Your task to perform on an android device: Open calendar and show me the second week of next month Image 0: 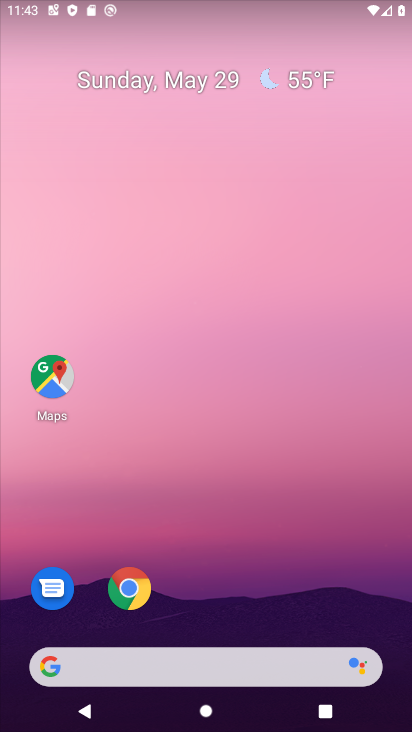
Step 0: drag from (256, 543) to (331, 31)
Your task to perform on an android device: Open calendar and show me the second week of next month Image 1: 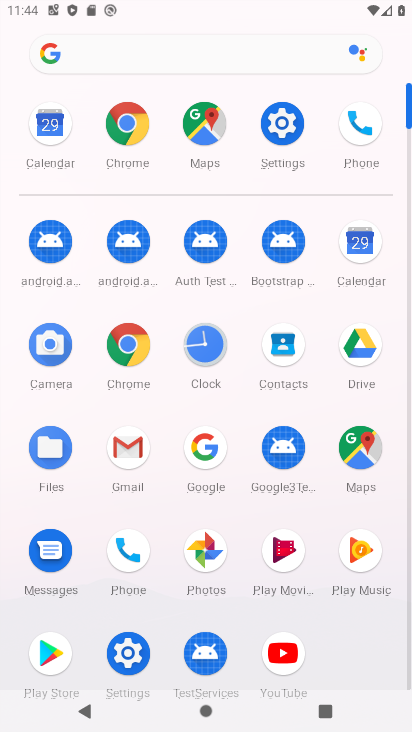
Step 1: click (40, 115)
Your task to perform on an android device: Open calendar and show me the second week of next month Image 2: 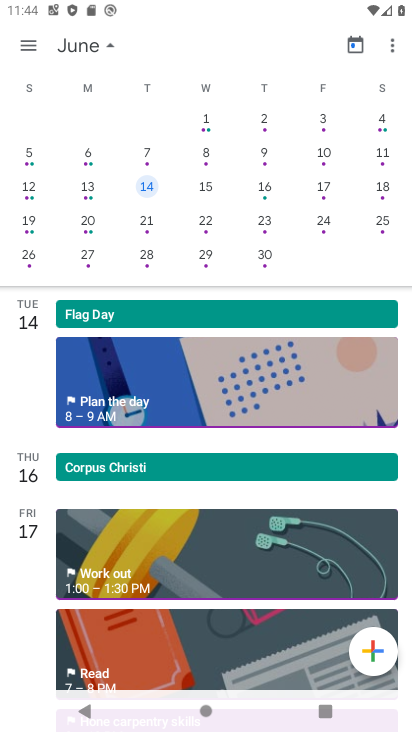
Step 2: drag from (360, 231) to (9, 247)
Your task to perform on an android device: Open calendar and show me the second week of next month Image 3: 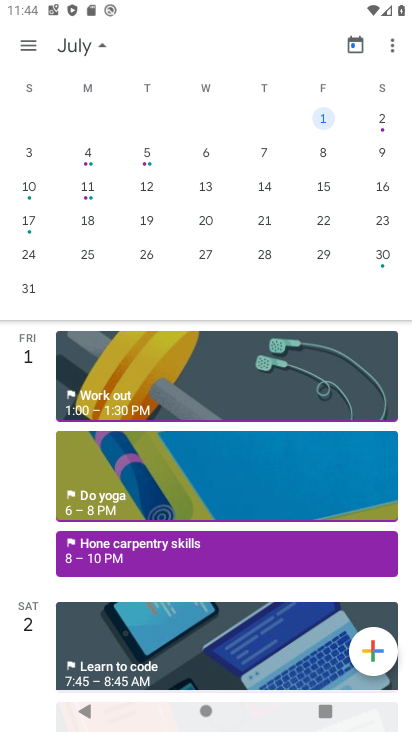
Step 3: click (263, 190)
Your task to perform on an android device: Open calendar and show me the second week of next month Image 4: 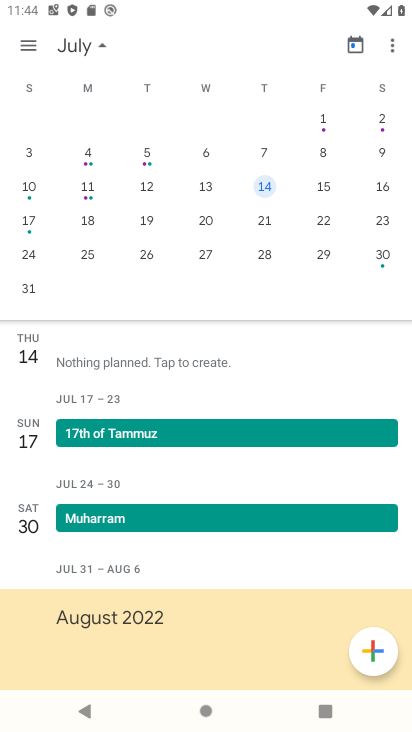
Step 4: task complete